Your task to perform on an android device: Open Wikipedia Image 0: 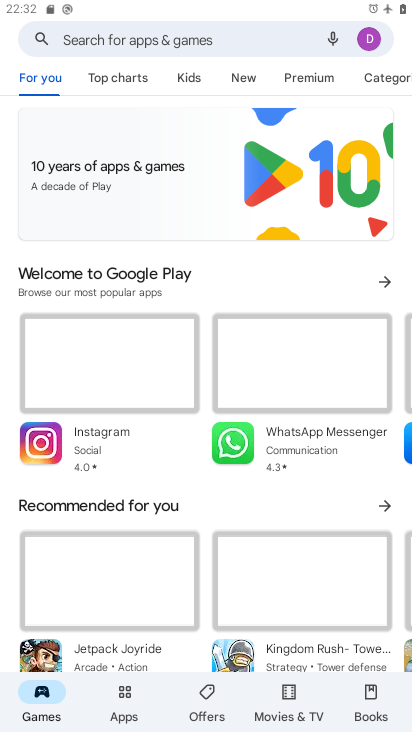
Step 0: press home button
Your task to perform on an android device: Open Wikipedia Image 1: 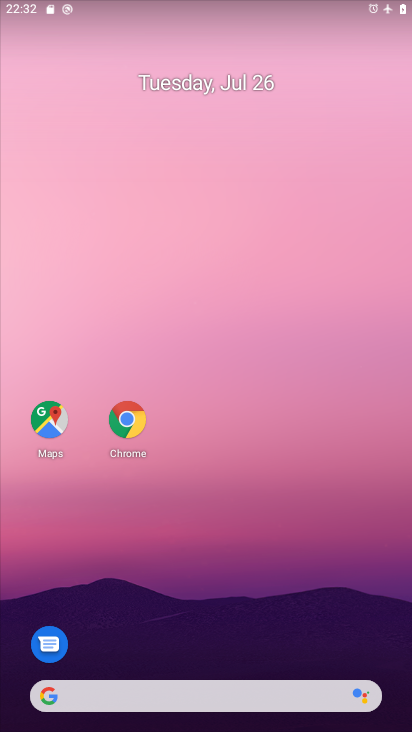
Step 1: drag from (158, 658) to (221, 231)
Your task to perform on an android device: Open Wikipedia Image 2: 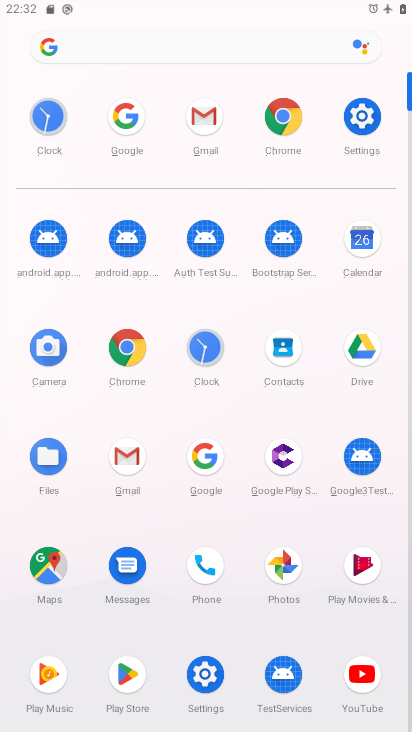
Step 2: click (290, 116)
Your task to perform on an android device: Open Wikipedia Image 3: 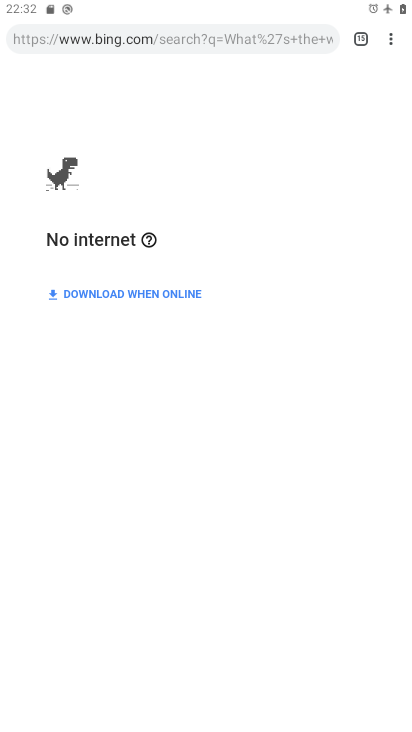
Step 3: click (395, 32)
Your task to perform on an android device: Open Wikipedia Image 4: 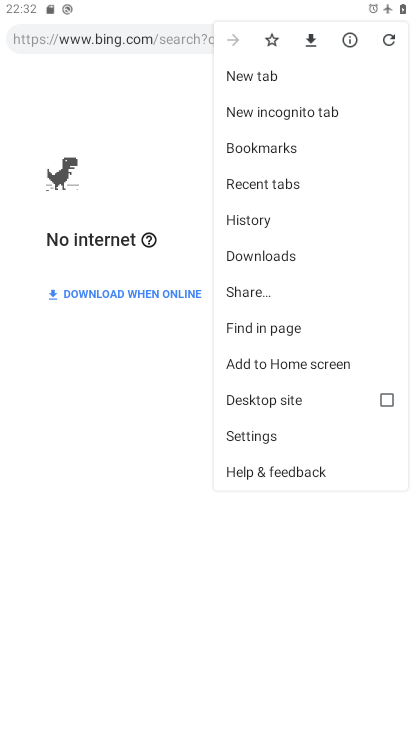
Step 4: click (287, 74)
Your task to perform on an android device: Open Wikipedia Image 5: 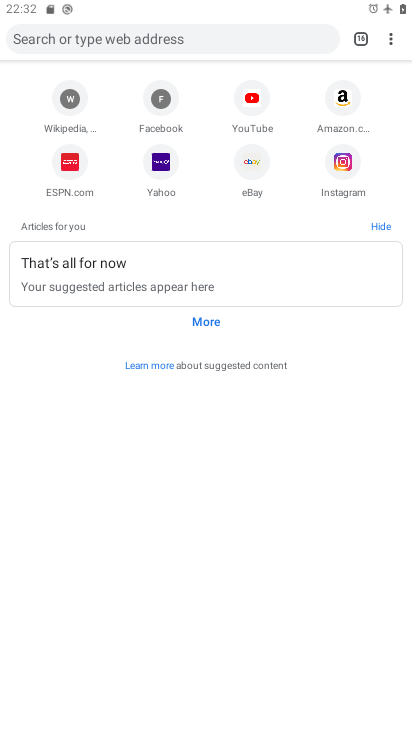
Step 5: click (67, 91)
Your task to perform on an android device: Open Wikipedia Image 6: 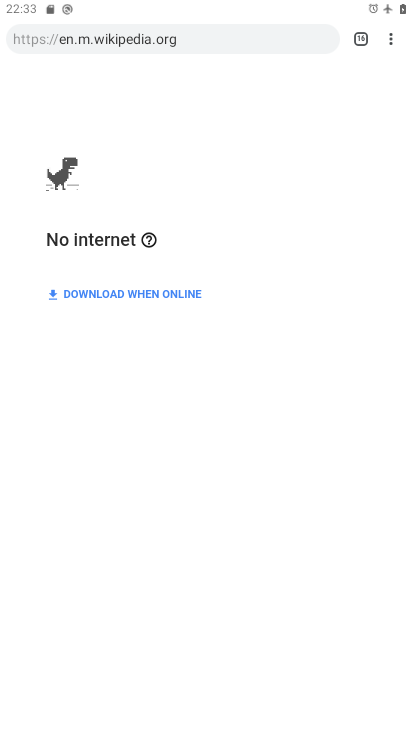
Step 6: task complete